Your task to perform on an android device: Open accessibility settings Image 0: 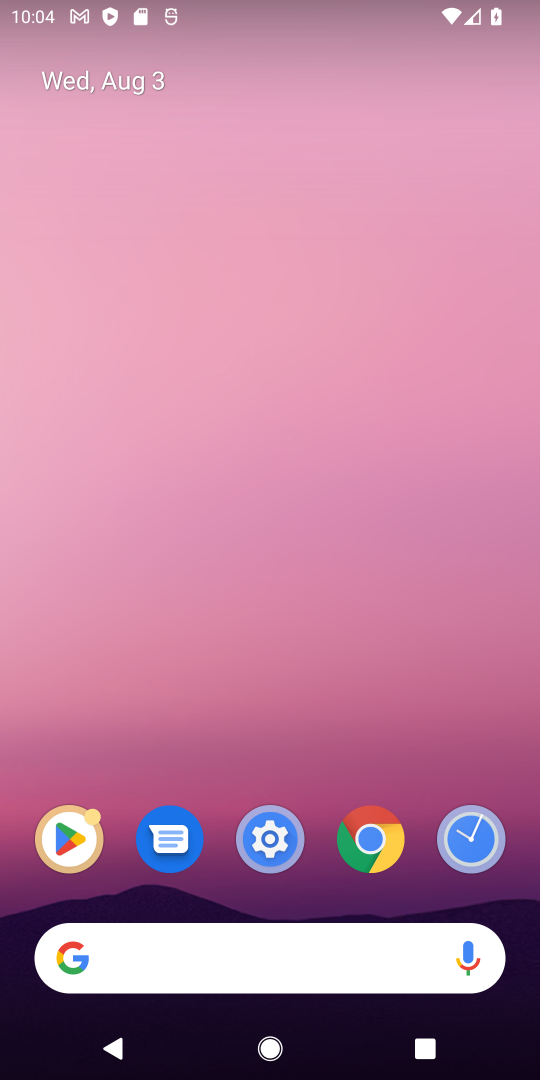
Step 0: click (265, 820)
Your task to perform on an android device: Open accessibility settings Image 1: 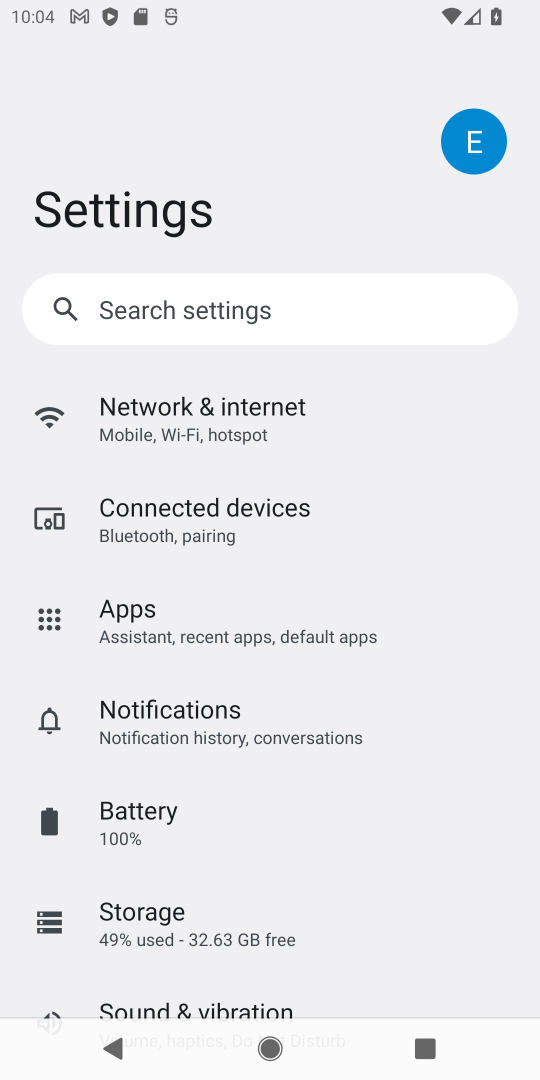
Step 1: drag from (241, 805) to (248, 392)
Your task to perform on an android device: Open accessibility settings Image 2: 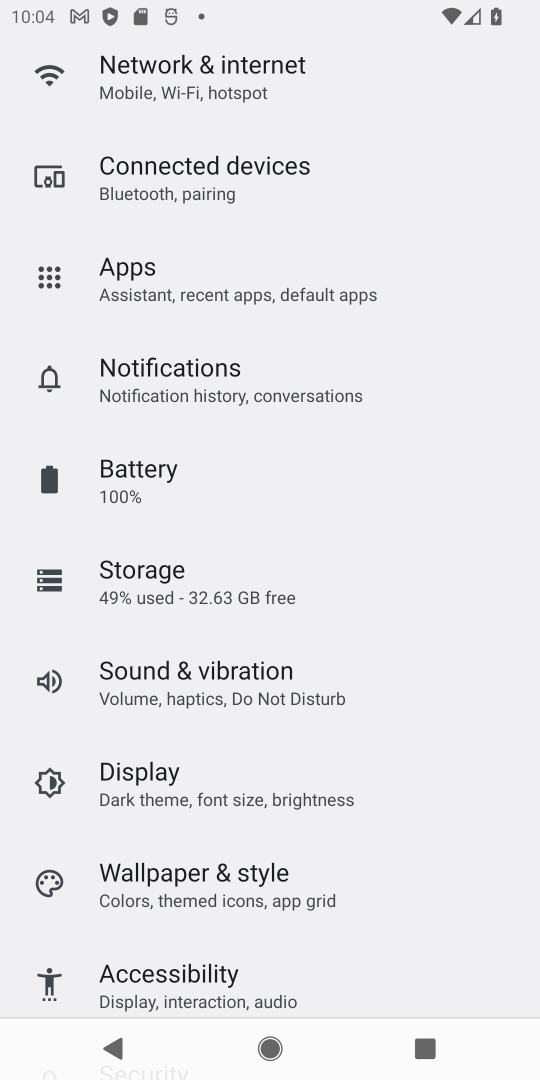
Step 2: drag from (230, 861) to (271, 521)
Your task to perform on an android device: Open accessibility settings Image 3: 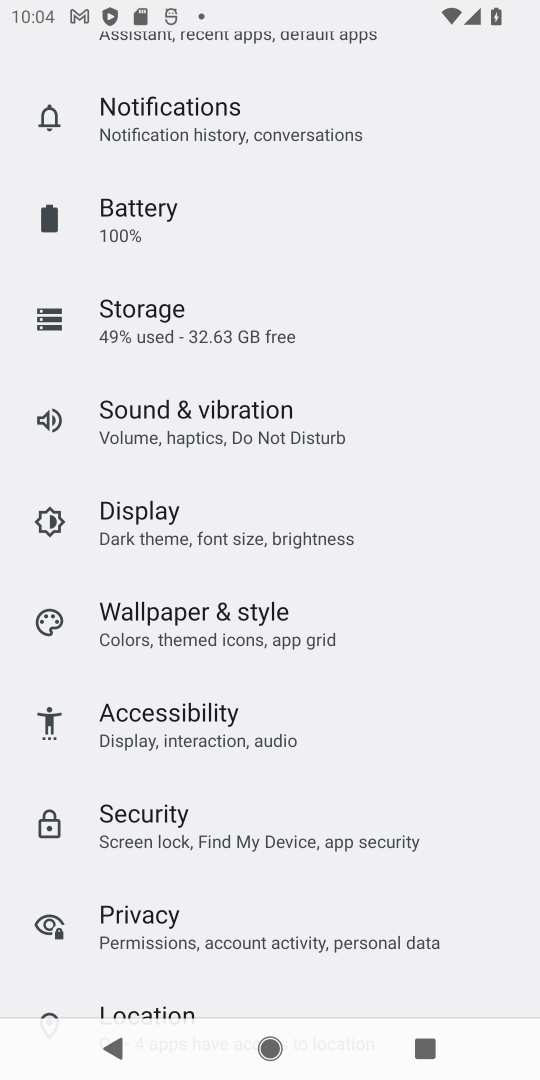
Step 3: click (208, 725)
Your task to perform on an android device: Open accessibility settings Image 4: 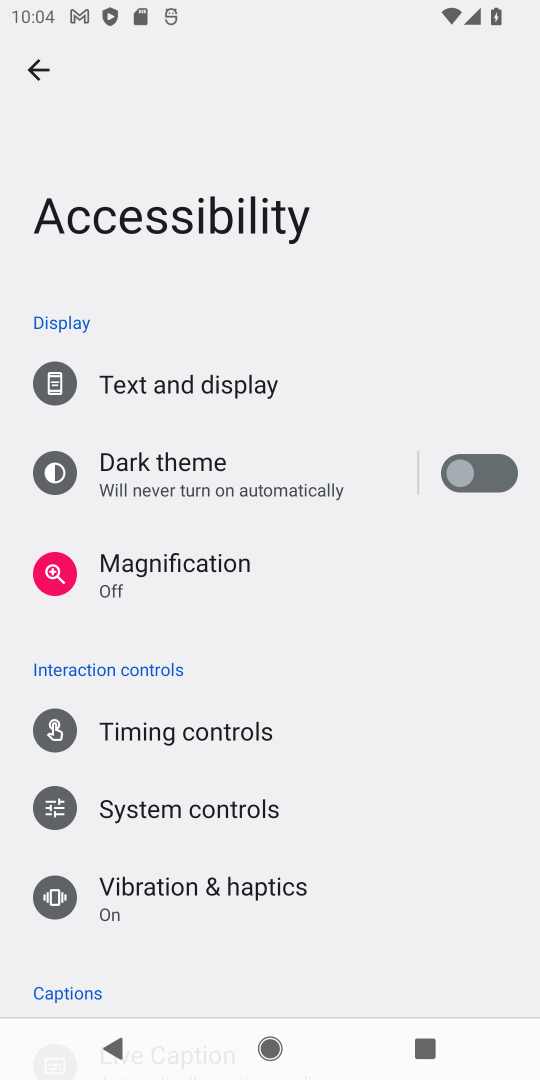
Step 4: task complete